Your task to perform on an android device: turn on priority inbox in the gmail app Image 0: 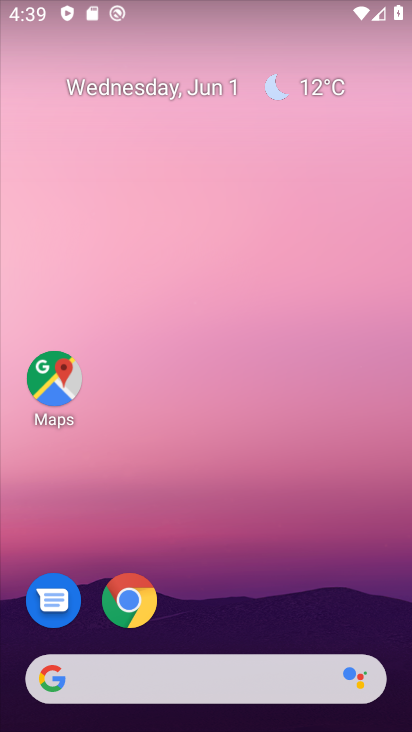
Step 0: drag from (257, 607) to (234, 85)
Your task to perform on an android device: turn on priority inbox in the gmail app Image 1: 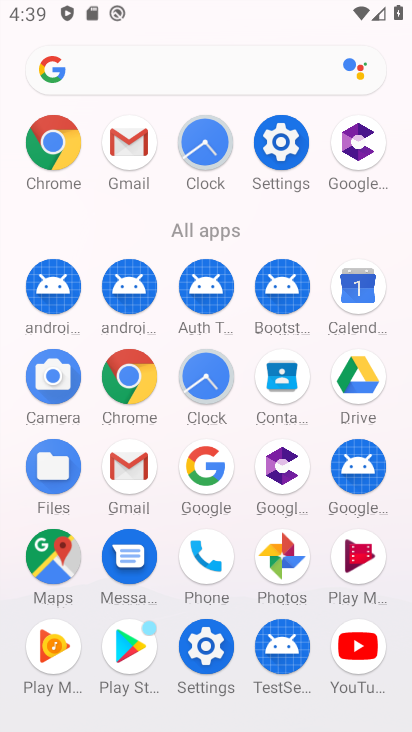
Step 1: click (128, 139)
Your task to perform on an android device: turn on priority inbox in the gmail app Image 2: 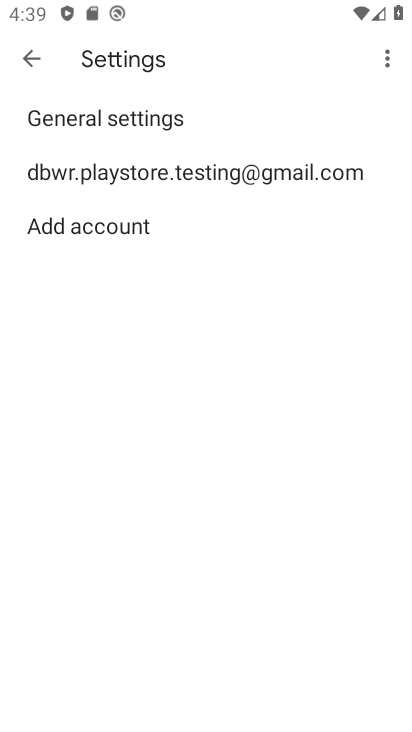
Step 2: click (138, 172)
Your task to perform on an android device: turn on priority inbox in the gmail app Image 3: 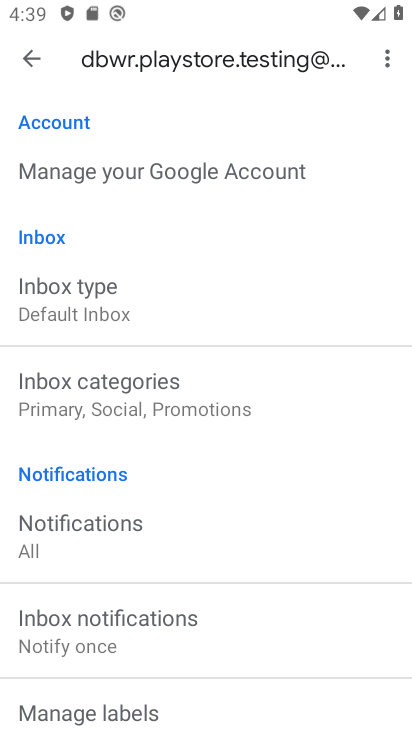
Step 3: click (105, 317)
Your task to perform on an android device: turn on priority inbox in the gmail app Image 4: 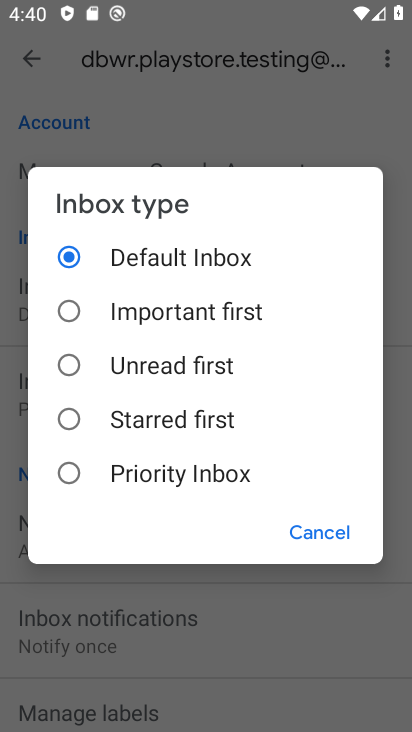
Step 4: click (69, 469)
Your task to perform on an android device: turn on priority inbox in the gmail app Image 5: 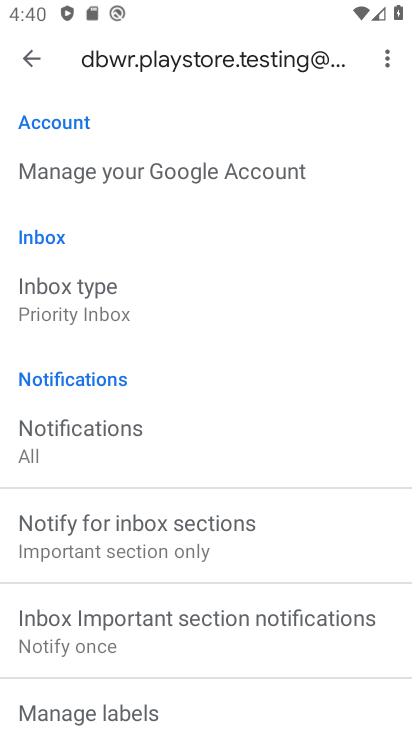
Step 5: task complete